Your task to perform on an android device: change notifications settings Image 0: 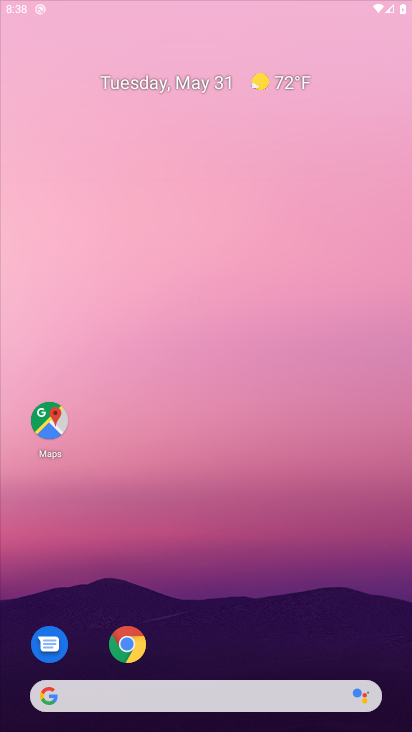
Step 0: press home button
Your task to perform on an android device: change notifications settings Image 1: 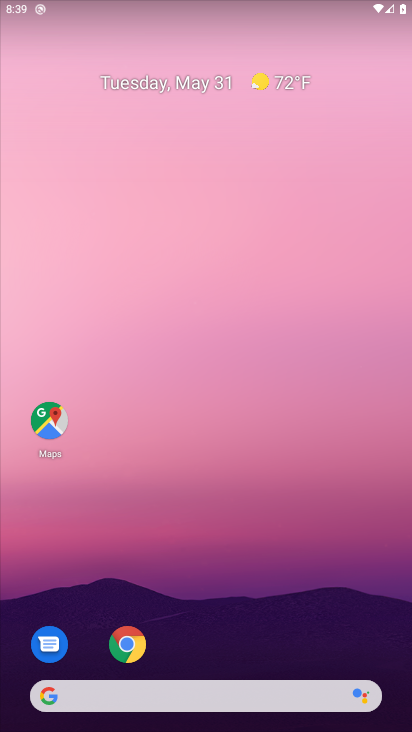
Step 1: drag from (220, 648) to (252, 77)
Your task to perform on an android device: change notifications settings Image 2: 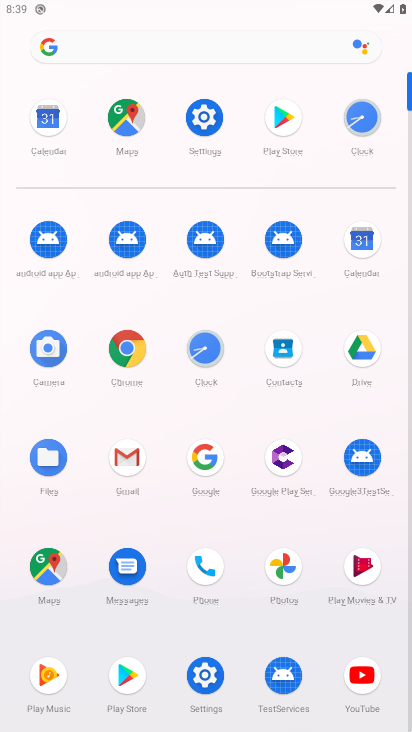
Step 2: click (207, 112)
Your task to perform on an android device: change notifications settings Image 3: 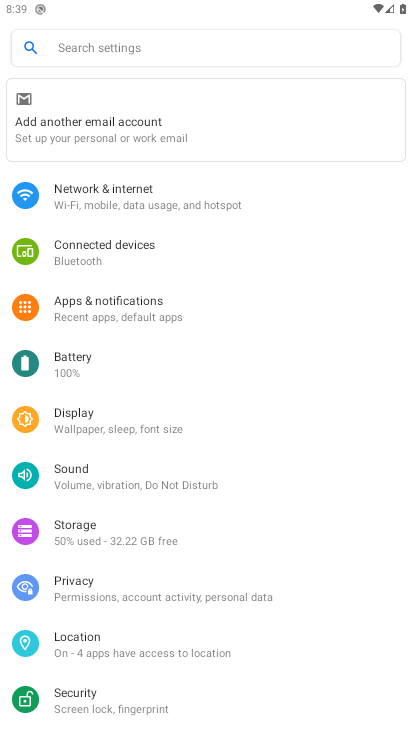
Step 3: click (190, 302)
Your task to perform on an android device: change notifications settings Image 4: 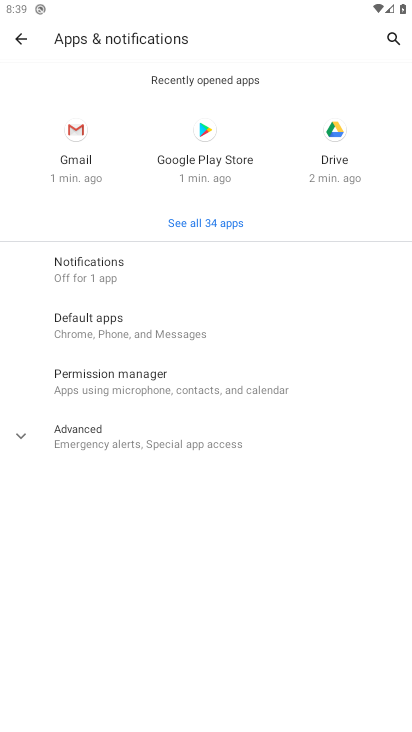
Step 4: click (137, 261)
Your task to perform on an android device: change notifications settings Image 5: 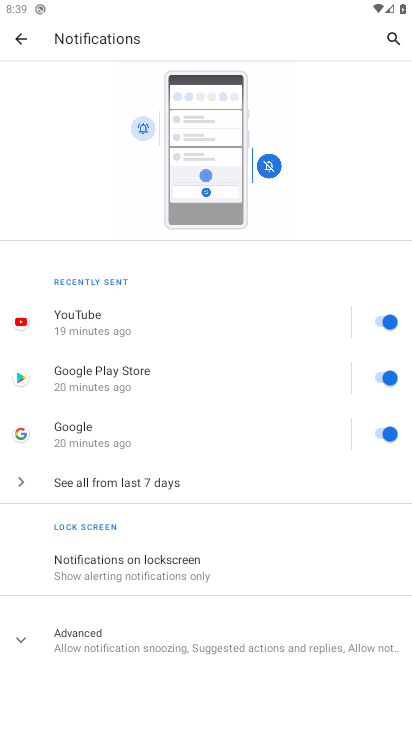
Step 5: click (66, 640)
Your task to perform on an android device: change notifications settings Image 6: 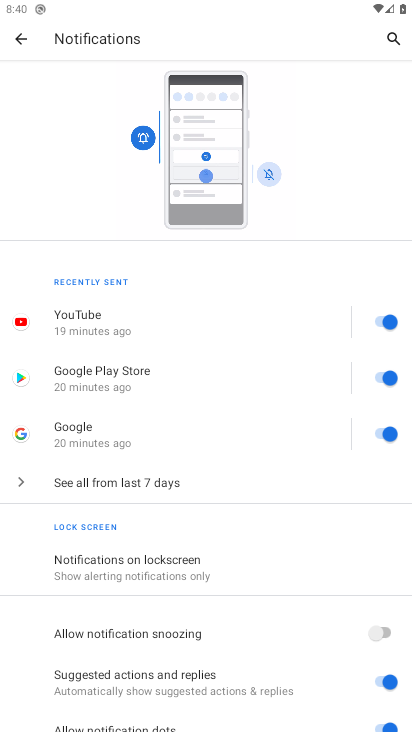
Step 6: drag from (267, 592) to (250, 211)
Your task to perform on an android device: change notifications settings Image 7: 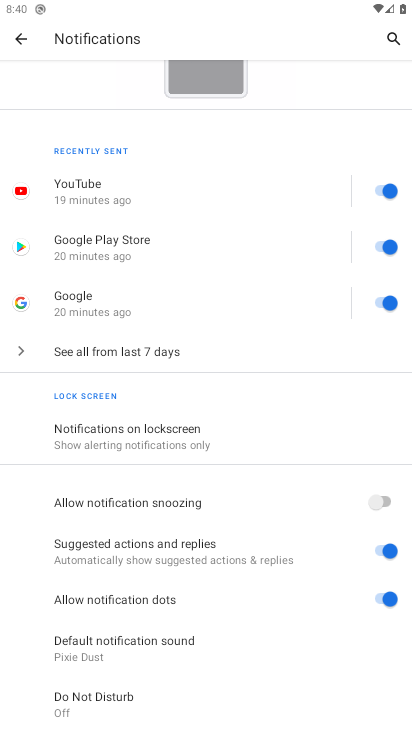
Step 7: click (382, 596)
Your task to perform on an android device: change notifications settings Image 8: 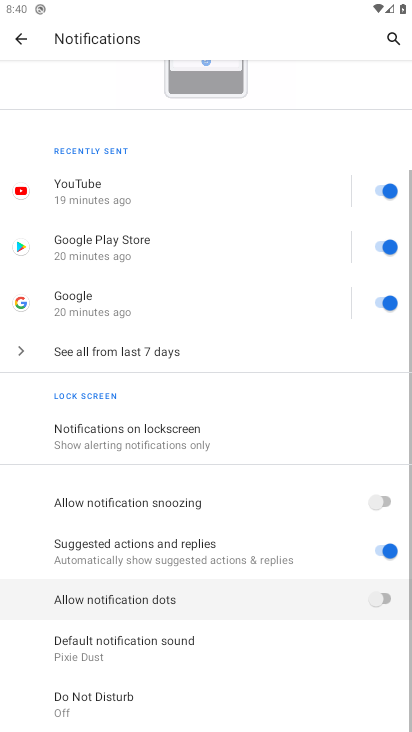
Step 8: click (371, 545)
Your task to perform on an android device: change notifications settings Image 9: 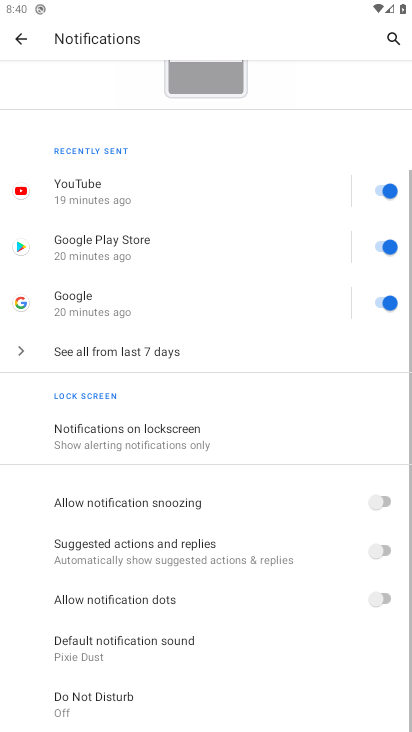
Step 9: click (386, 301)
Your task to perform on an android device: change notifications settings Image 10: 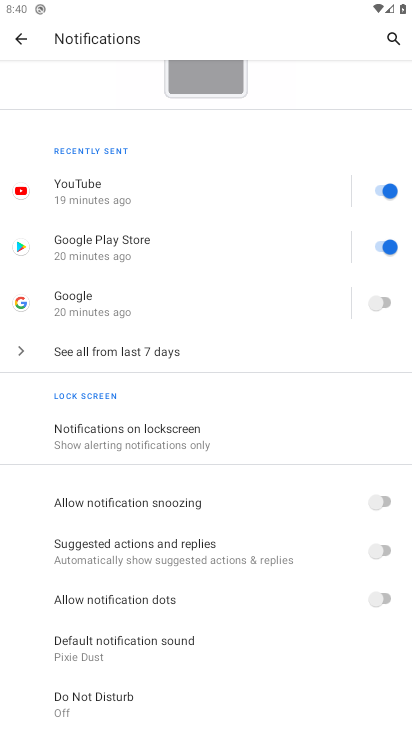
Step 10: click (374, 238)
Your task to perform on an android device: change notifications settings Image 11: 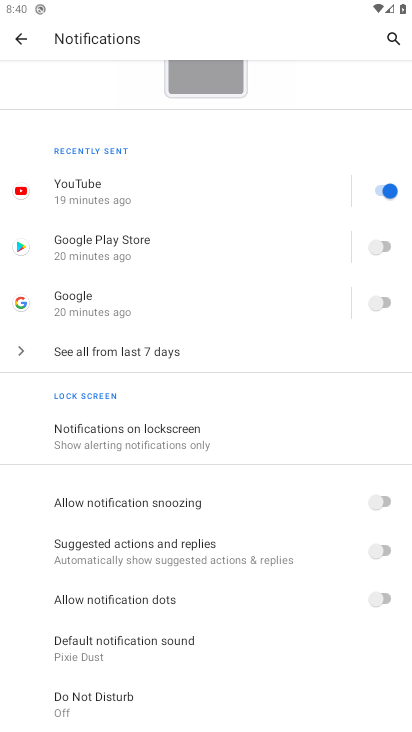
Step 11: click (385, 188)
Your task to perform on an android device: change notifications settings Image 12: 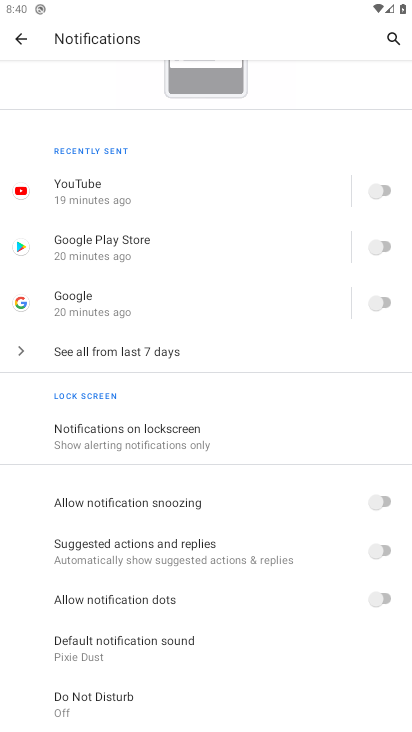
Step 12: task complete